Your task to perform on an android device: What's the weather going to be tomorrow? Image 0: 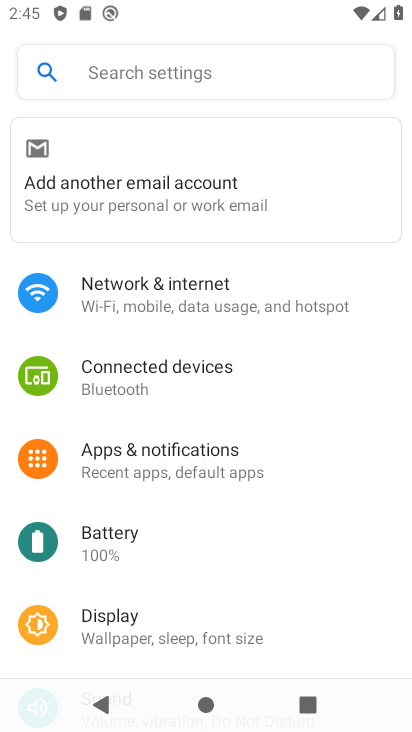
Step 0: press home button
Your task to perform on an android device: What's the weather going to be tomorrow? Image 1: 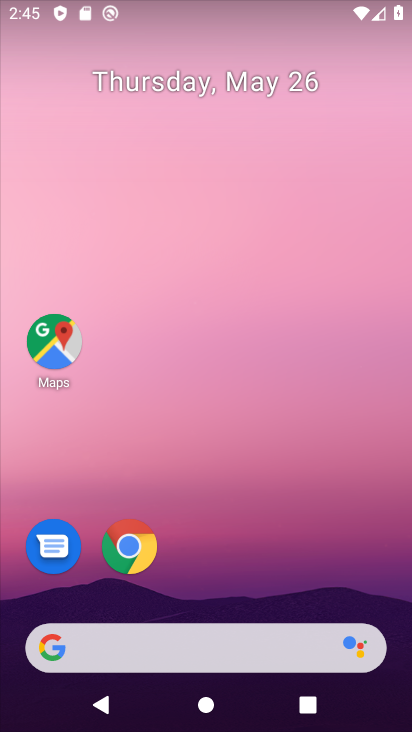
Step 1: drag from (246, 524) to (240, 53)
Your task to perform on an android device: What's the weather going to be tomorrow? Image 2: 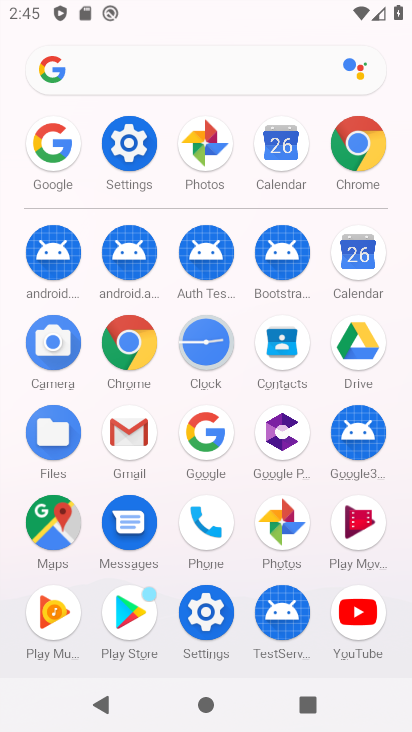
Step 2: click (203, 412)
Your task to perform on an android device: What's the weather going to be tomorrow? Image 3: 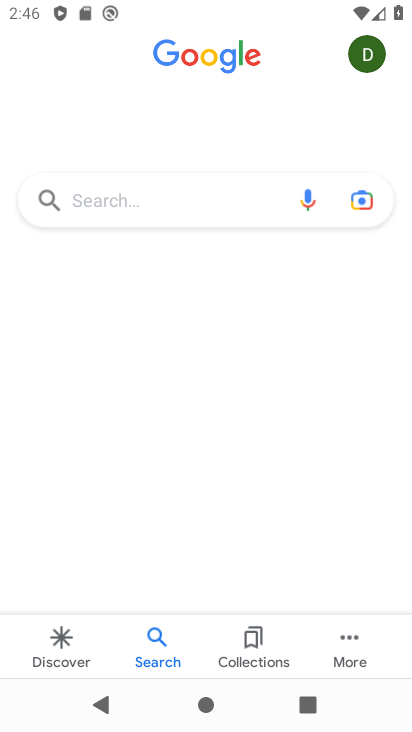
Step 3: click (190, 201)
Your task to perform on an android device: What's the weather going to be tomorrow? Image 4: 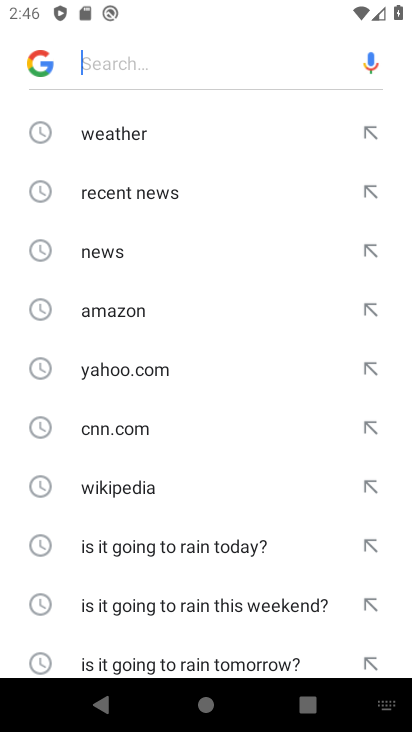
Step 4: click (127, 135)
Your task to perform on an android device: What's the weather going to be tomorrow? Image 5: 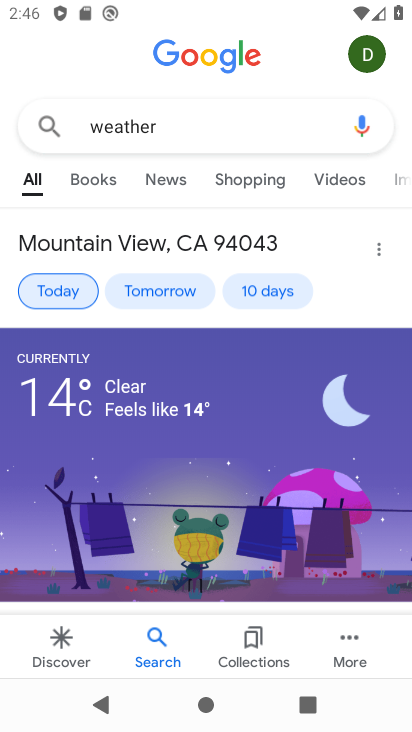
Step 5: click (159, 285)
Your task to perform on an android device: What's the weather going to be tomorrow? Image 6: 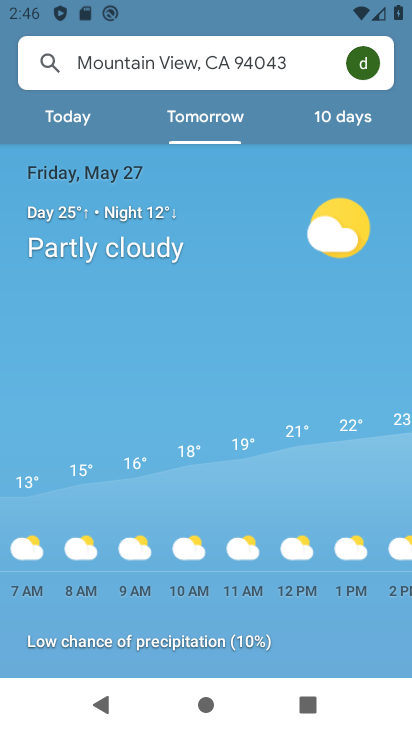
Step 6: task complete